Your task to perform on an android device: turn smart compose on in the gmail app Image 0: 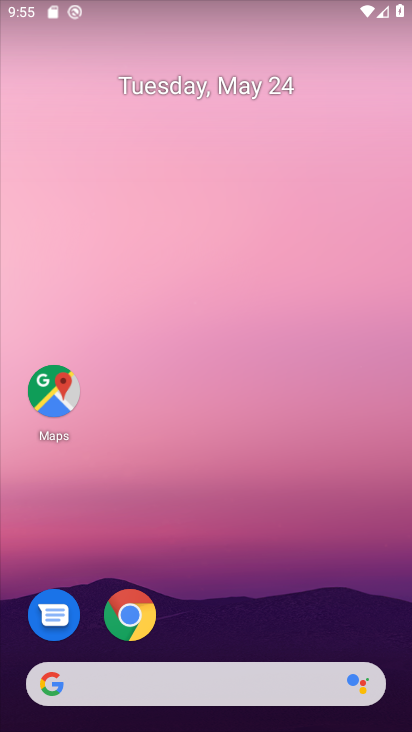
Step 0: drag from (372, 628) to (381, 222)
Your task to perform on an android device: turn smart compose on in the gmail app Image 1: 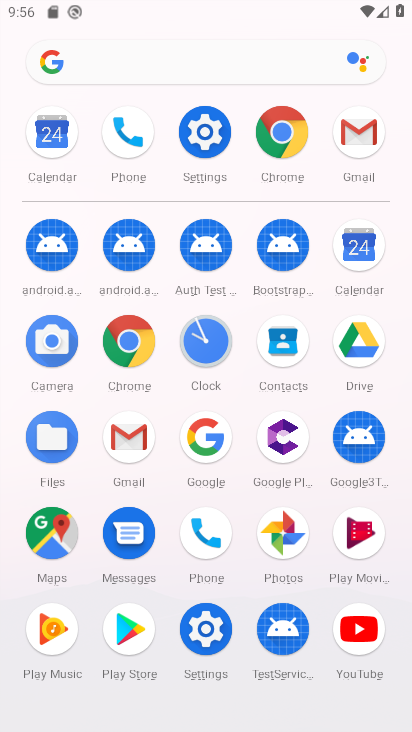
Step 1: click (133, 437)
Your task to perform on an android device: turn smart compose on in the gmail app Image 2: 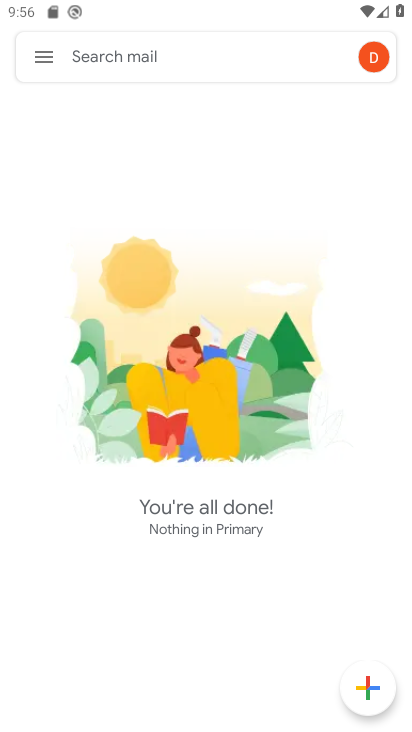
Step 2: click (41, 64)
Your task to perform on an android device: turn smart compose on in the gmail app Image 3: 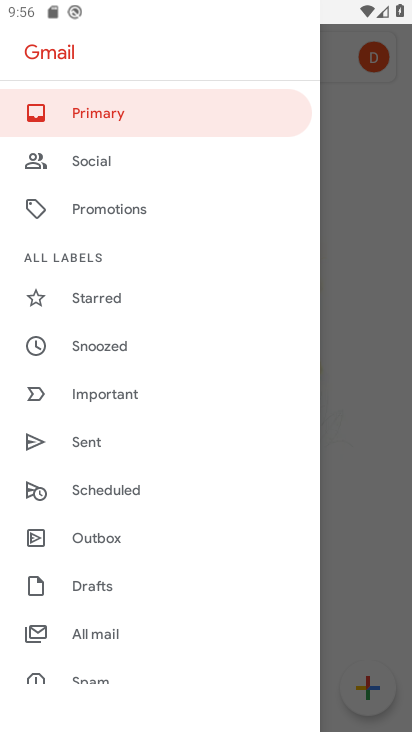
Step 3: drag from (213, 476) to (230, 323)
Your task to perform on an android device: turn smart compose on in the gmail app Image 4: 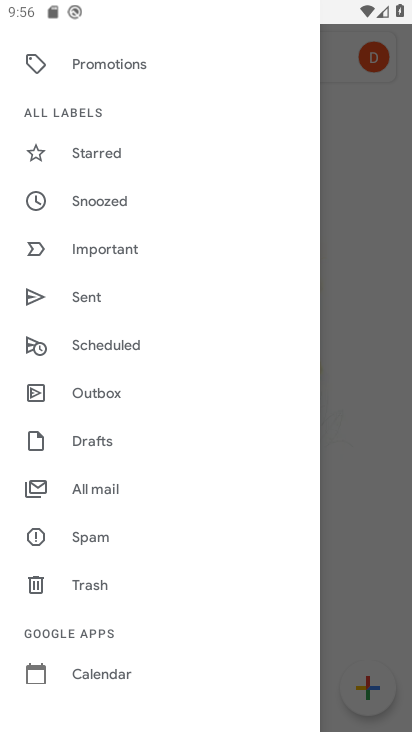
Step 4: drag from (231, 505) to (218, 340)
Your task to perform on an android device: turn smart compose on in the gmail app Image 5: 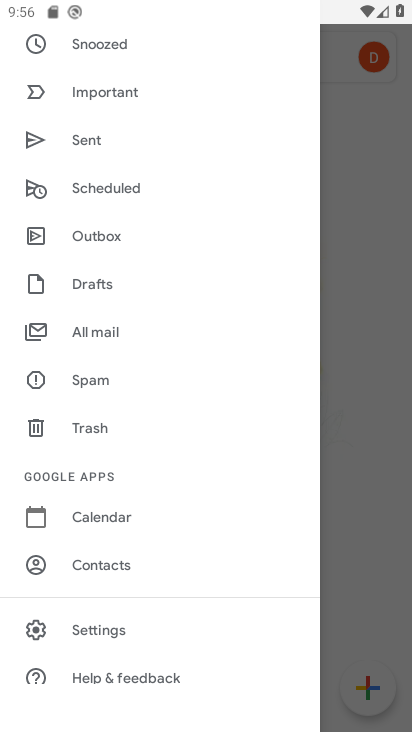
Step 5: drag from (209, 484) to (215, 375)
Your task to perform on an android device: turn smart compose on in the gmail app Image 6: 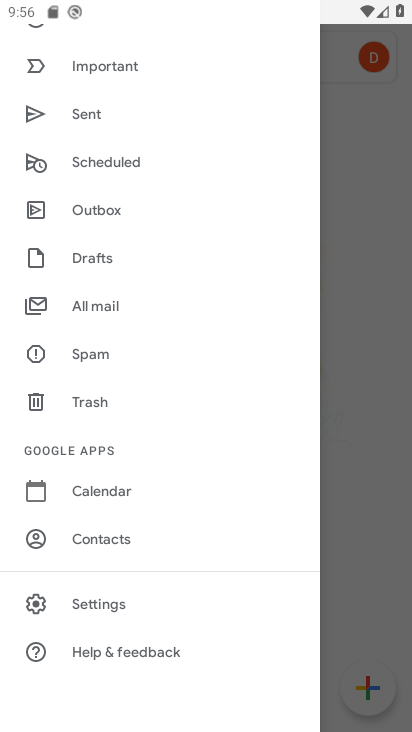
Step 6: click (112, 606)
Your task to perform on an android device: turn smart compose on in the gmail app Image 7: 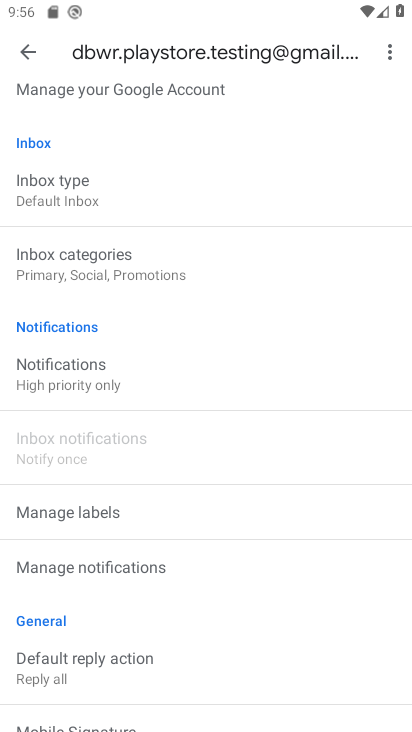
Step 7: task complete